Your task to perform on an android device: Search for vegetarian restaurants on Maps Image 0: 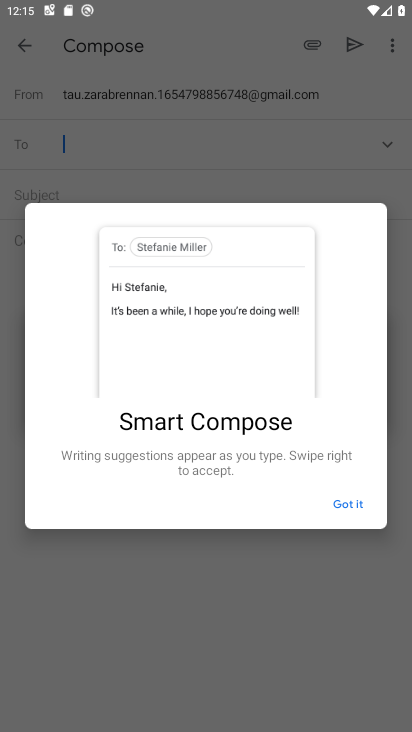
Step 0: press home button
Your task to perform on an android device: Search for vegetarian restaurants on Maps Image 1: 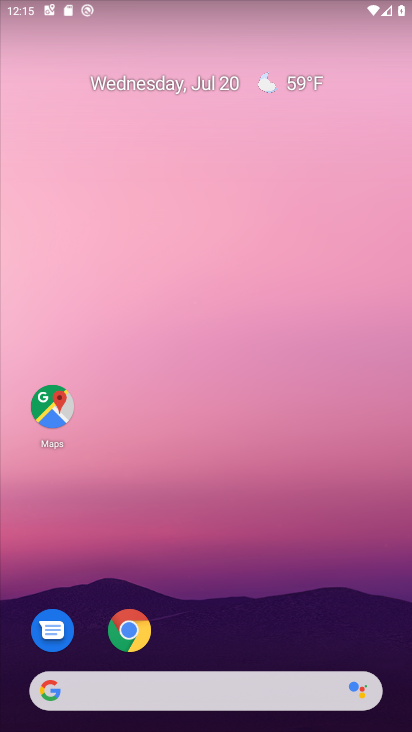
Step 1: click (51, 412)
Your task to perform on an android device: Search for vegetarian restaurants on Maps Image 2: 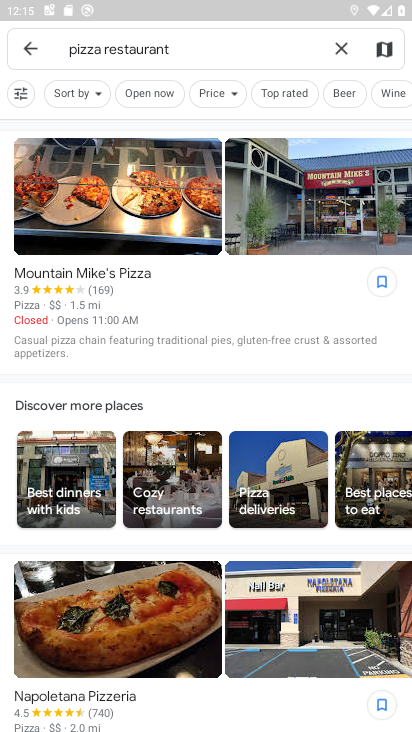
Step 2: click (342, 48)
Your task to perform on an android device: Search for vegetarian restaurants on Maps Image 3: 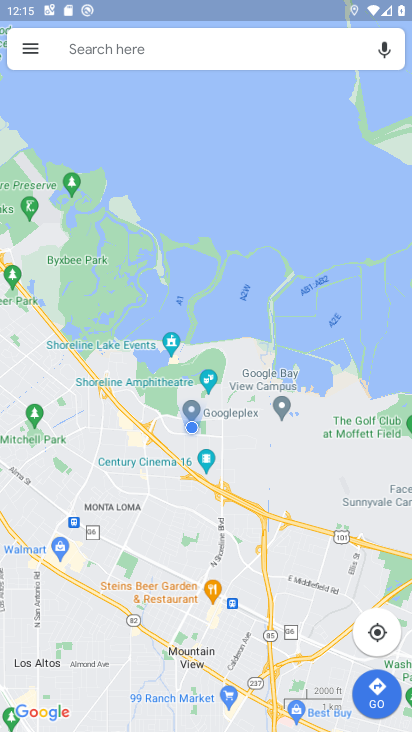
Step 3: click (113, 50)
Your task to perform on an android device: Search for vegetarian restaurants on Maps Image 4: 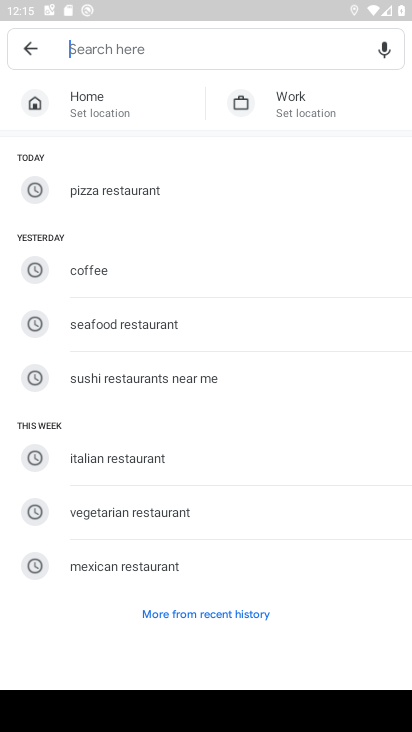
Step 4: type "vegetarian restaurants"
Your task to perform on an android device: Search for vegetarian restaurants on Maps Image 5: 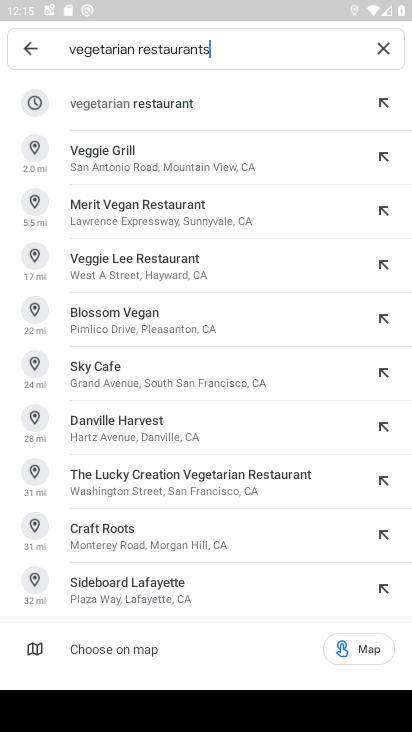
Step 5: click (110, 101)
Your task to perform on an android device: Search for vegetarian restaurants on Maps Image 6: 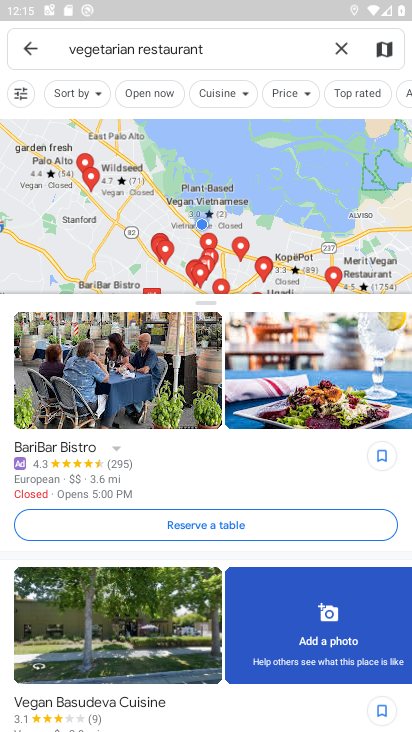
Step 6: task complete